Your task to perform on an android device: Open Chrome and go to settings Image 0: 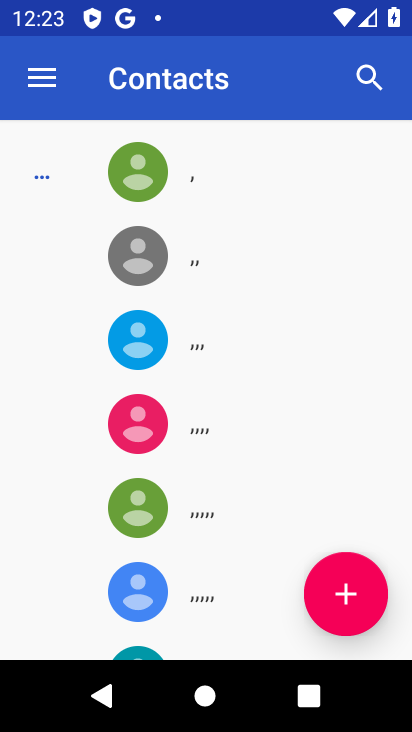
Step 0: press back button
Your task to perform on an android device: Open Chrome and go to settings Image 1: 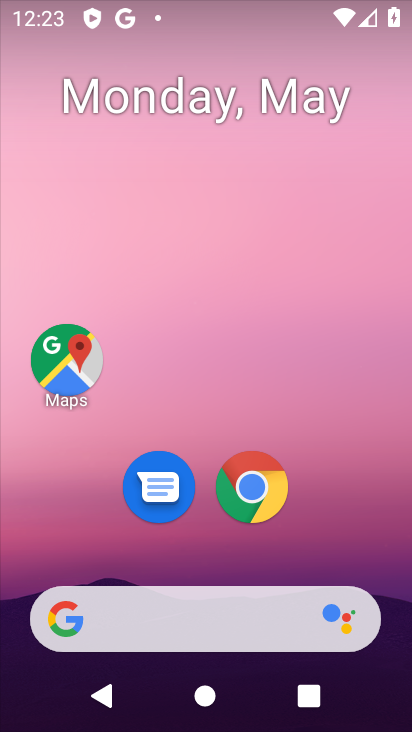
Step 1: click (255, 485)
Your task to perform on an android device: Open Chrome and go to settings Image 2: 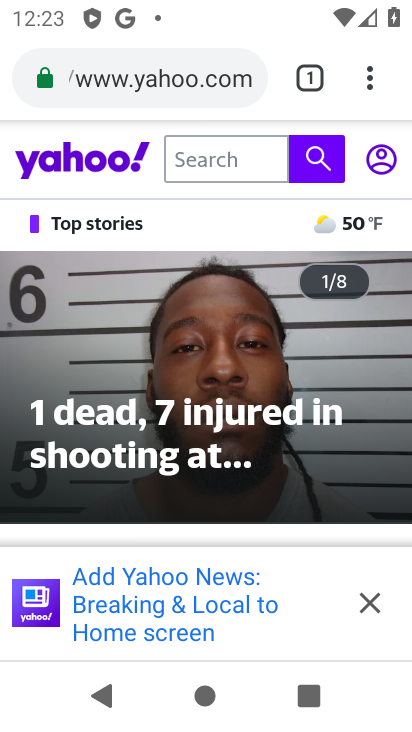
Step 2: click (371, 75)
Your task to perform on an android device: Open Chrome and go to settings Image 3: 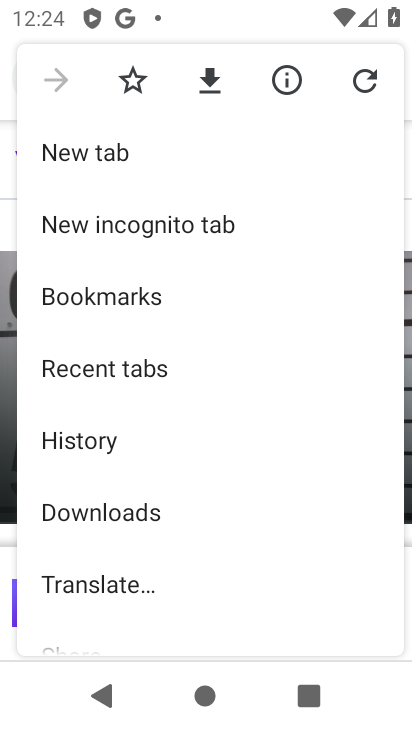
Step 3: drag from (94, 413) to (93, 307)
Your task to perform on an android device: Open Chrome and go to settings Image 4: 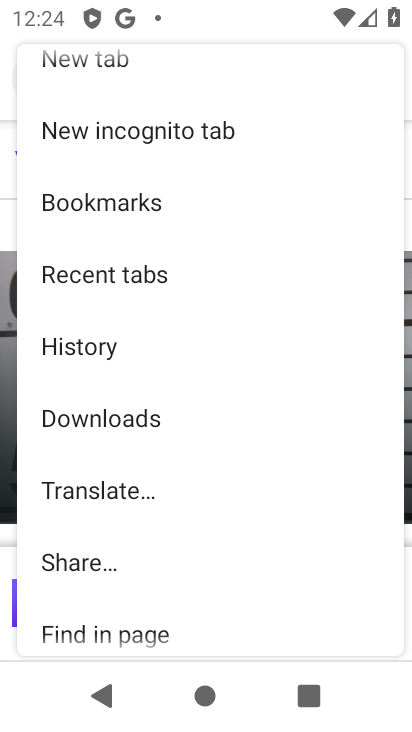
Step 4: drag from (132, 536) to (271, 140)
Your task to perform on an android device: Open Chrome and go to settings Image 5: 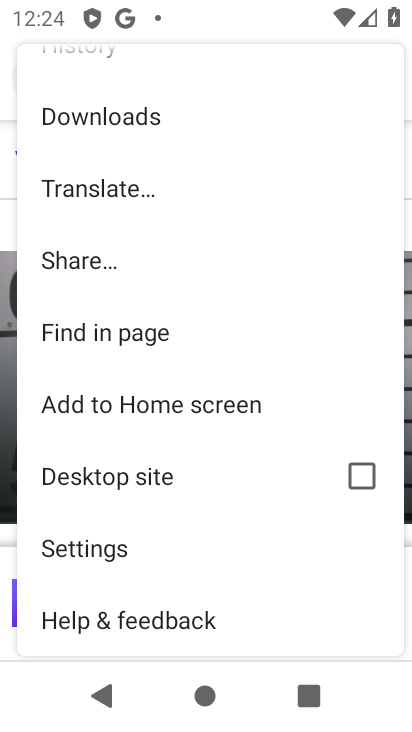
Step 5: click (114, 548)
Your task to perform on an android device: Open Chrome and go to settings Image 6: 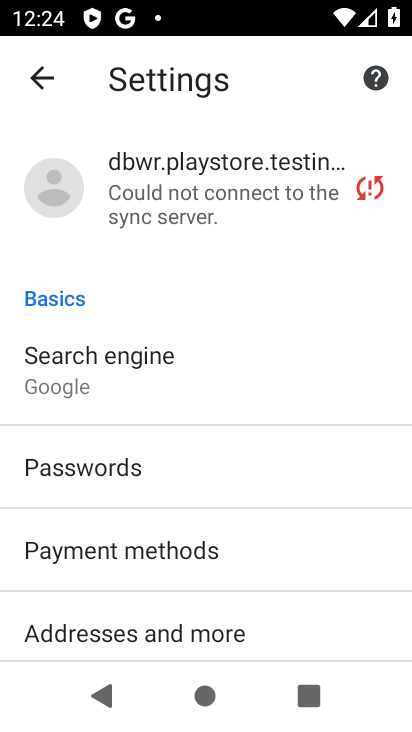
Step 6: task complete